Your task to perform on an android device: Go to sound settings Image 0: 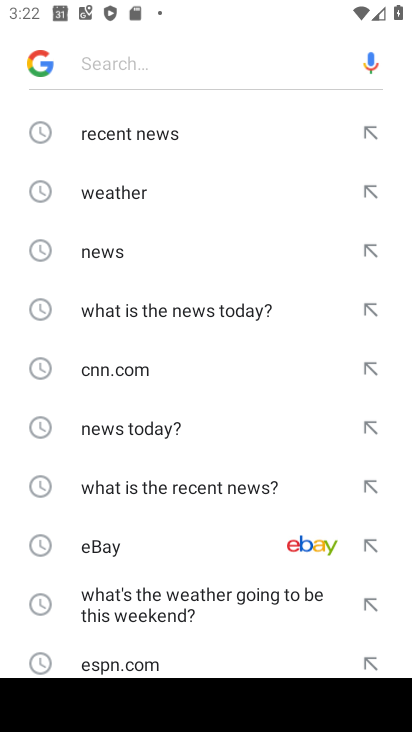
Step 0: press home button
Your task to perform on an android device: Go to sound settings Image 1: 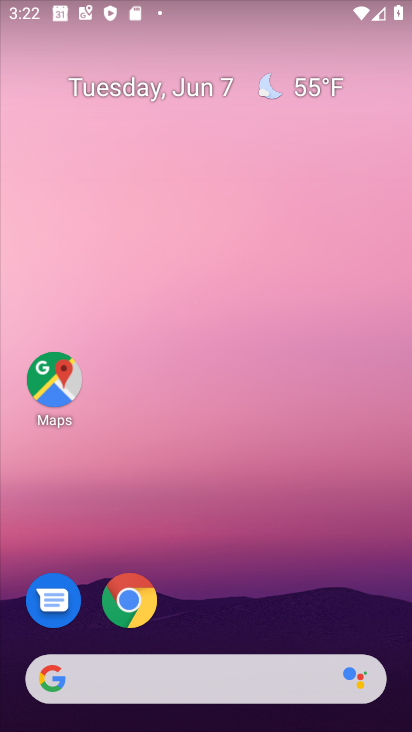
Step 1: drag from (197, 620) to (197, 223)
Your task to perform on an android device: Go to sound settings Image 2: 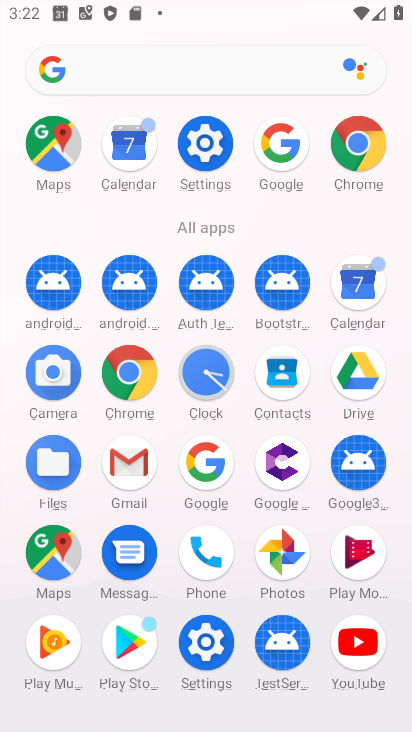
Step 2: click (200, 645)
Your task to perform on an android device: Go to sound settings Image 3: 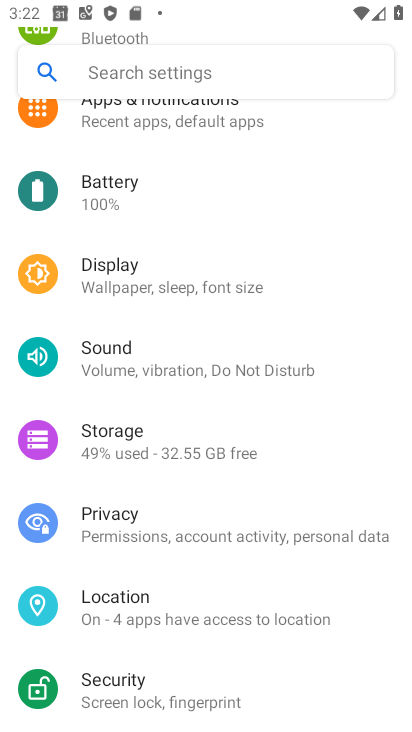
Step 3: click (140, 356)
Your task to perform on an android device: Go to sound settings Image 4: 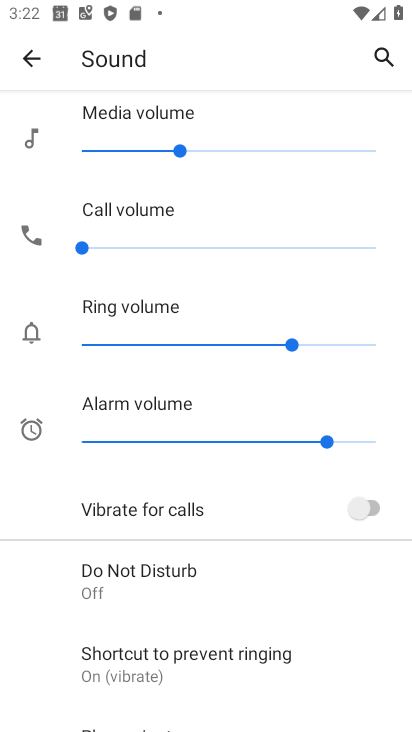
Step 4: task complete